Your task to perform on an android device: Do I have any events tomorrow? Image 0: 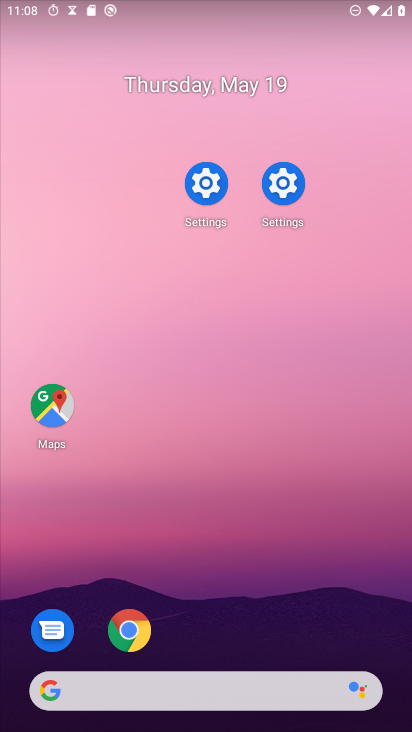
Step 0: drag from (317, 632) to (229, 151)
Your task to perform on an android device: Do I have any events tomorrow? Image 1: 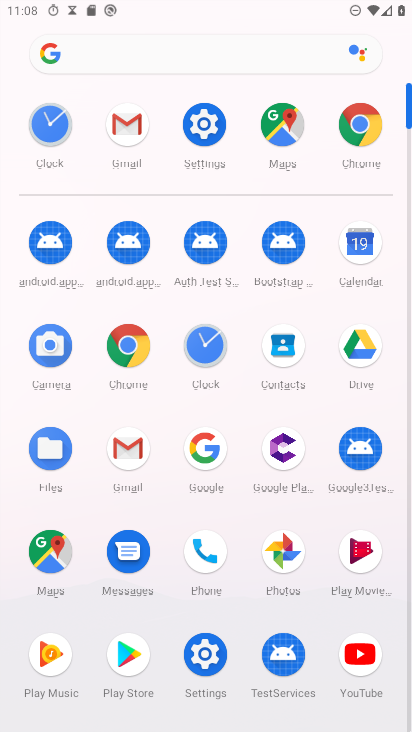
Step 1: click (365, 246)
Your task to perform on an android device: Do I have any events tomorrow? Image 2: 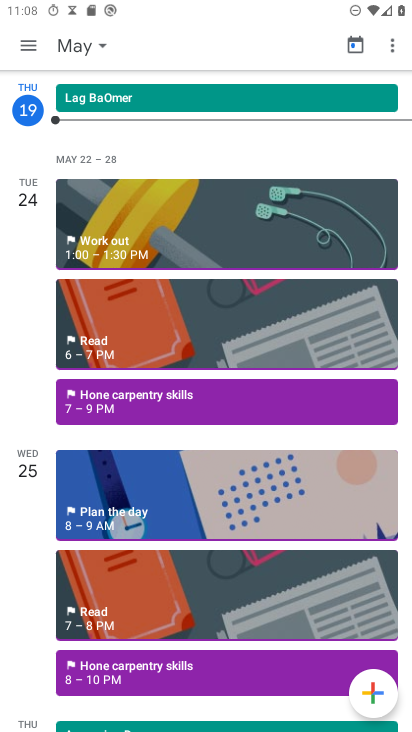
Step 2: click (111, 206)
Your task to perform on an android device: Do I have any events tomorrow? Image 3: 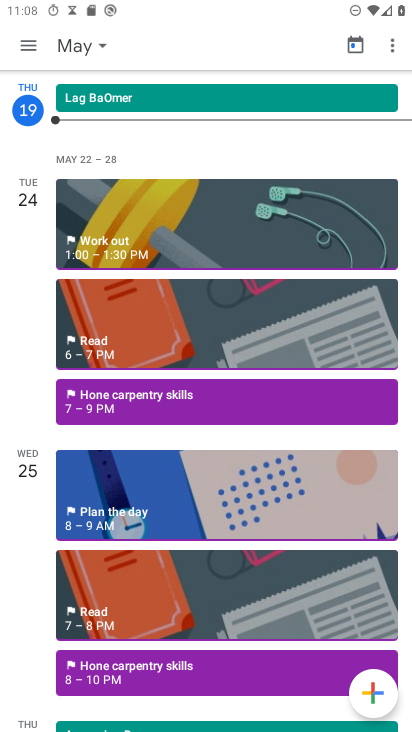
Step 3: task complete